Your task to perform on an android device: stop showing notifications on the lock screen Image 0: 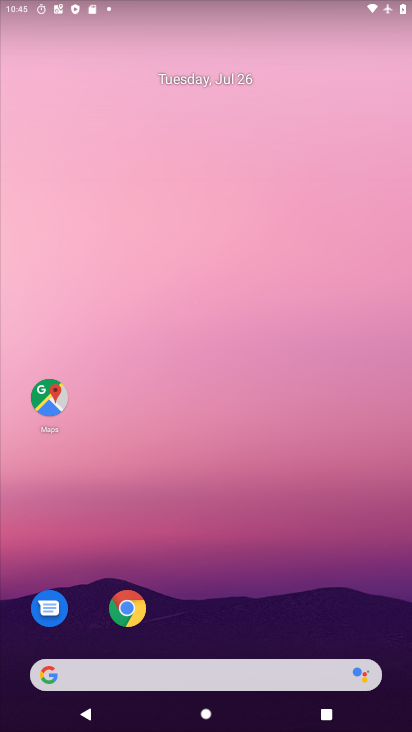
Step 0: drag from (200, 527) to (217, 209)
Your task to perform on an android device: stop showing notifications on the lock screen Image 1: 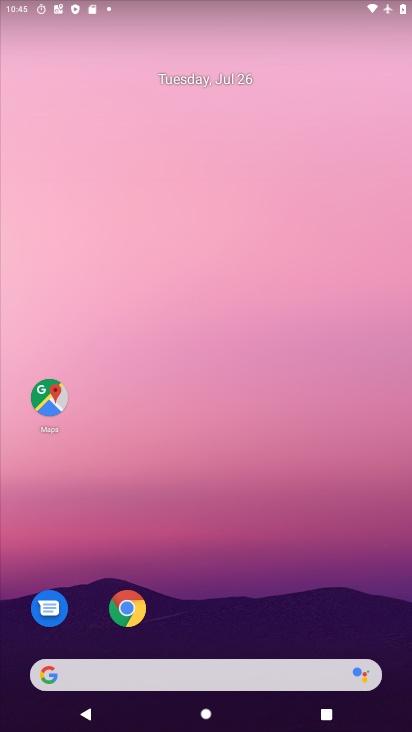
Step 1: drag from (180, 610) to (205, 74)
Your task to perform on an android device: stop showing notifications on the lock screen Image 2: 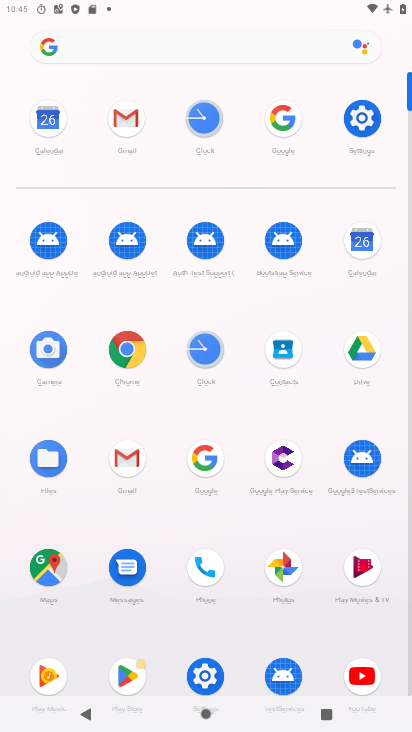
Step 2: click (360, 114)
Your task to perform on an android device: stop showing notifications on the lock screen Image 3: 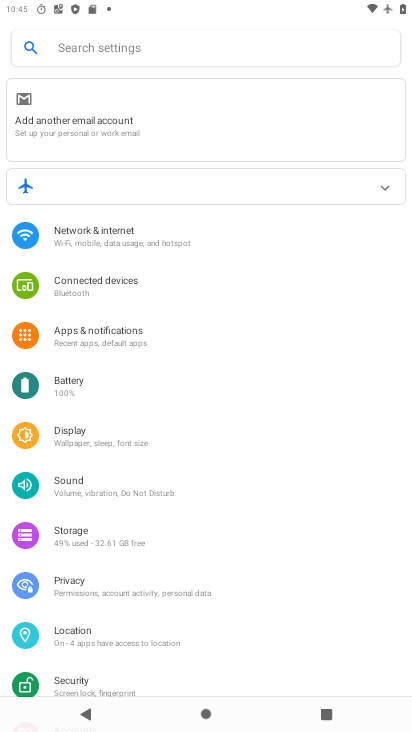
Step 3: click (169, 322)
Your task to perform on an android device: stop showing notifications on the lock screen Image 4: 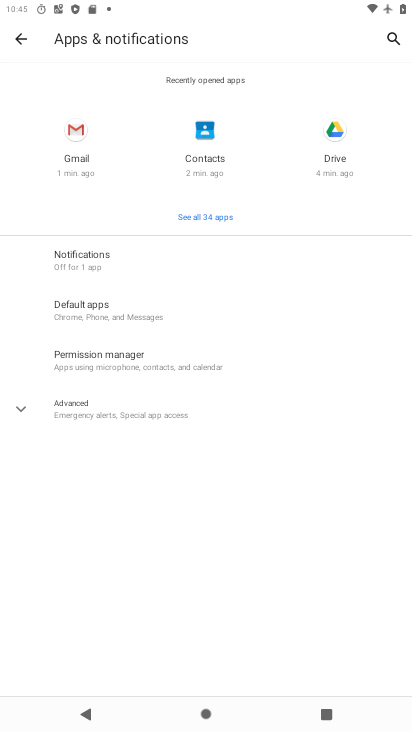
Step 4: click (92, 250)
Your task to perform on an android device: stop showing notifications on the lock screen Image 5: 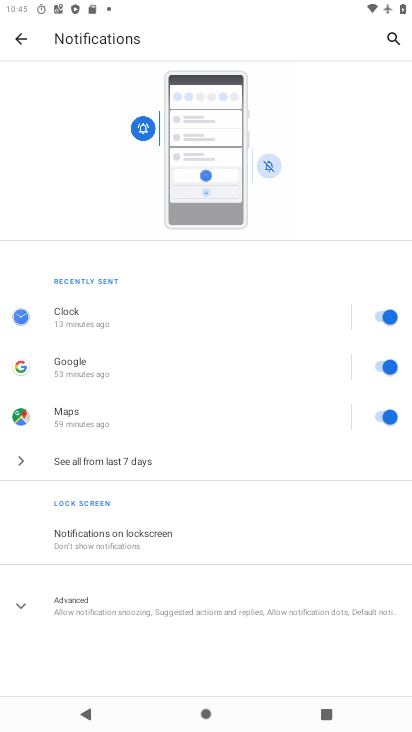
Step 5: click (225, 552)
Your task to perform on an android device: stop showing notifications on the lock screen Image 6: 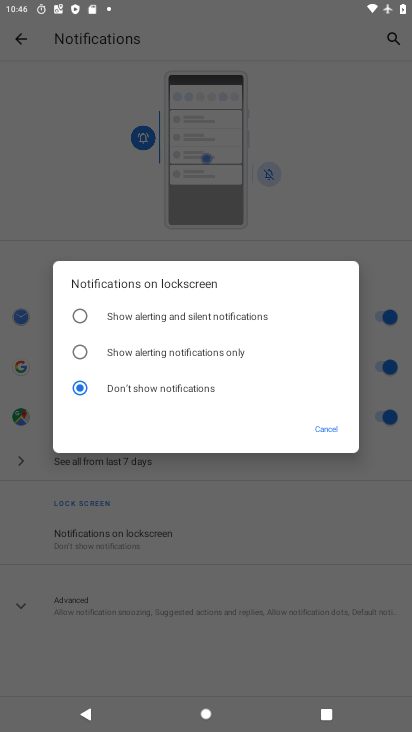
Step 6: task complete